Your task to perform on an android device: set an alarm Image 0: 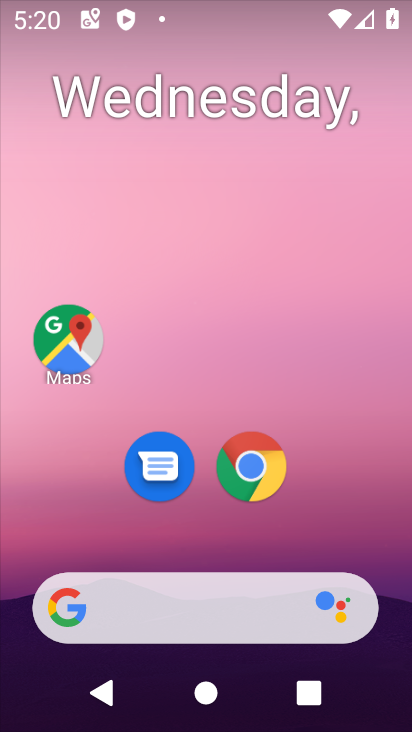
Step 0: drag from (340, 518) to (364, 2)
Your task to perform on an android device: set an alarm Image 1: 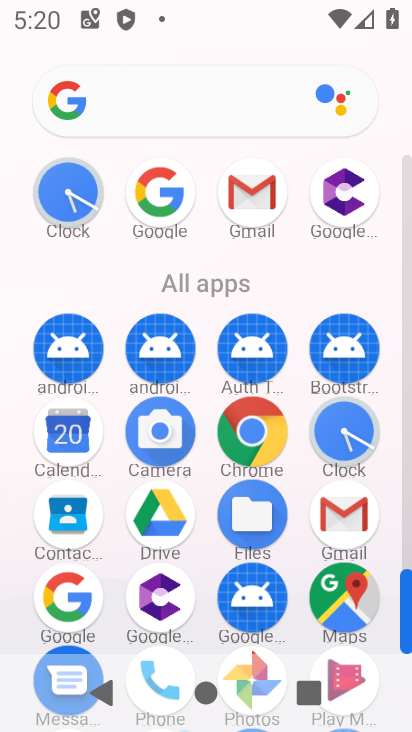
Step 1: click (349, 427)
Your task to perform on an android device: set an alarm Image 2: 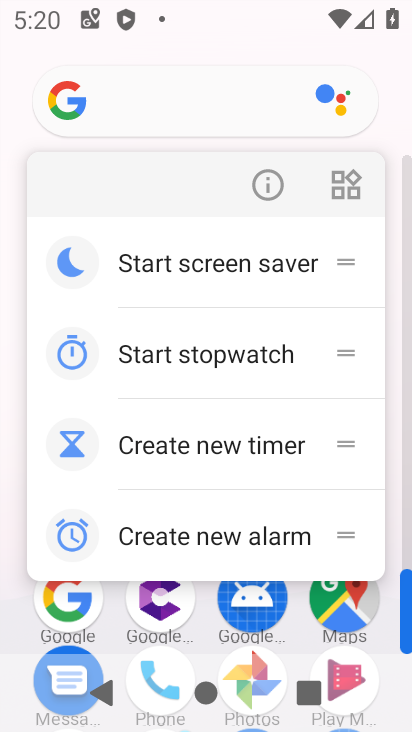
Step 2: click (405, 384)
Your task to perform on an android device: set an alarm Image 3: 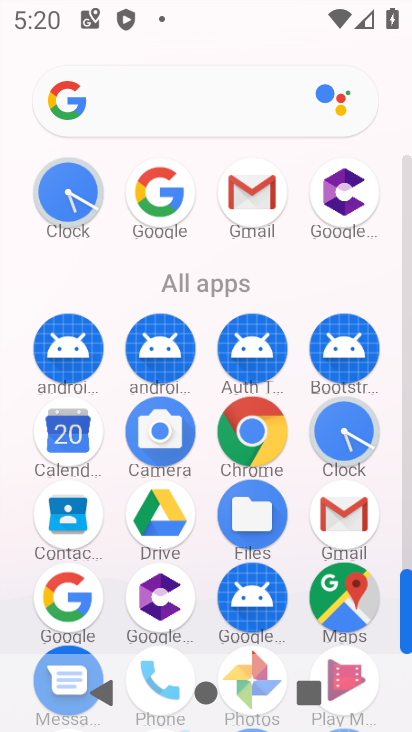
Step 3: click (353, 427)
Your task to perform on an android device: set an alarm Image 4: 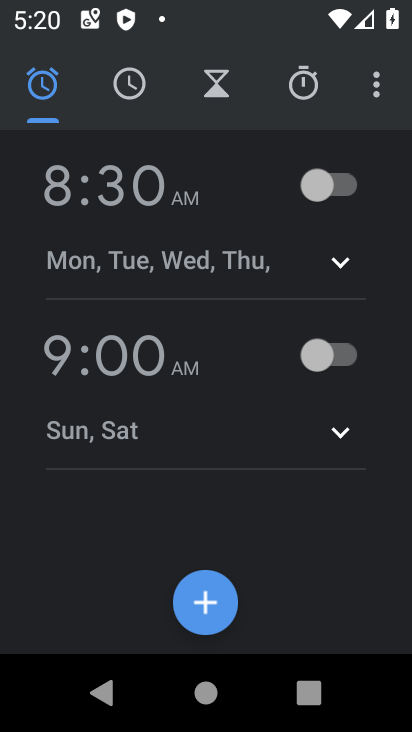
Step 4: click (219, 604)
Your task to perform on an android device: set an alarm Image 5: 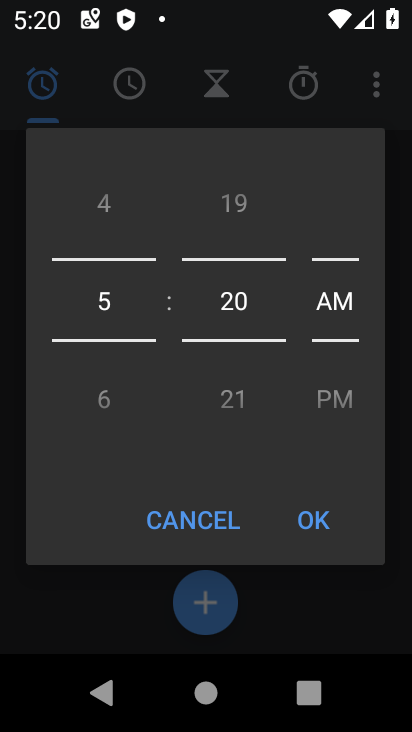
Step 5: click (316, 522)
Your task to perform on an android device: set an alarm Image 6: 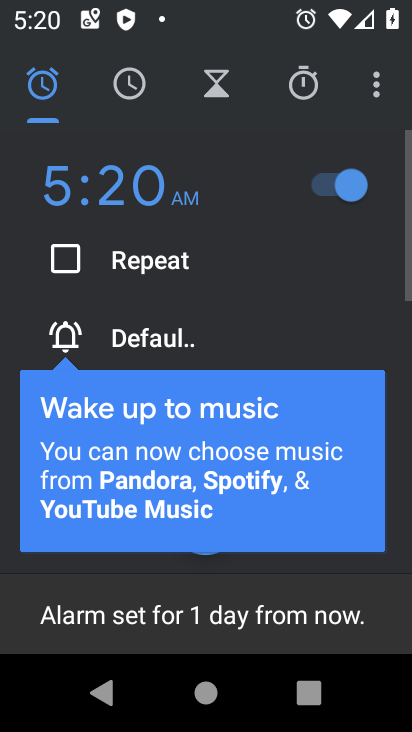
Step 6: task complete